Your task to perform on an android device: toggle sleep mode Image 0: 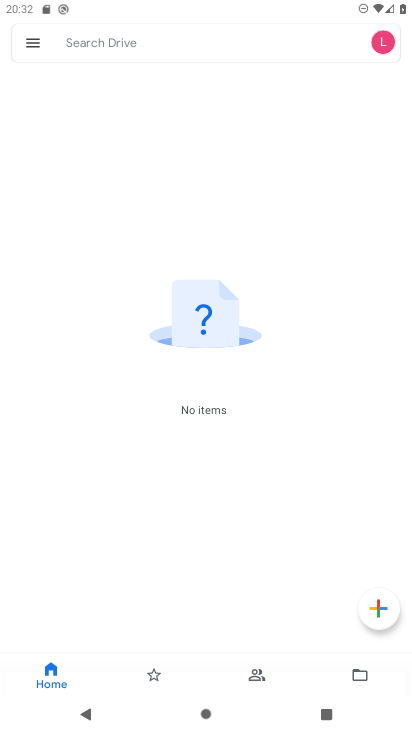
Step 0: press home button
Your task to perform on an android device: toggle sleep mode Image 1: 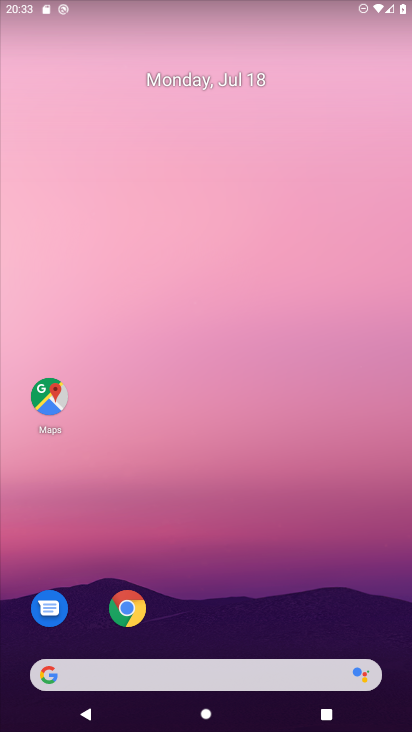
Step 1: drag from (259, 596) to (243, 59)
Your task to perform on an android device: toggle sleep mode Image 2: 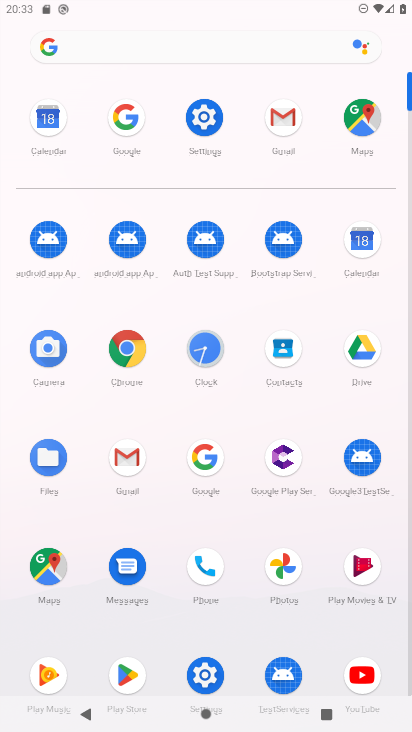
Step 2: click (205, 118)
Your task to perform on an android device: toggle sleep mode Image 3: 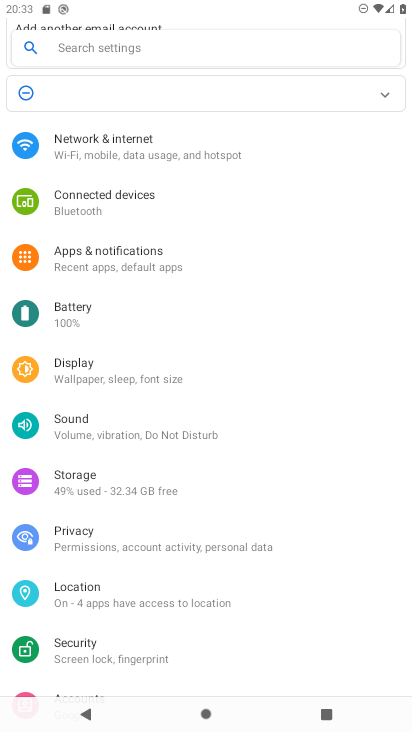
Step 3: click (100, 371)
Your task to perform on an android device: toggle sleep mode Image 4: 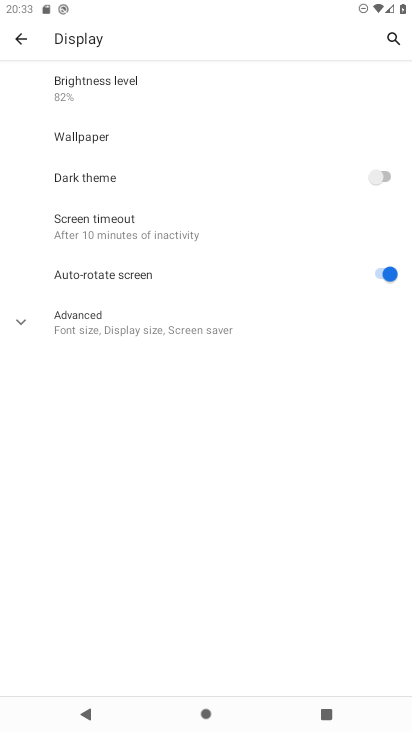
Step 4: click (104, 227)
Your task to perform on an android device: toggle sleep mode Image 5: 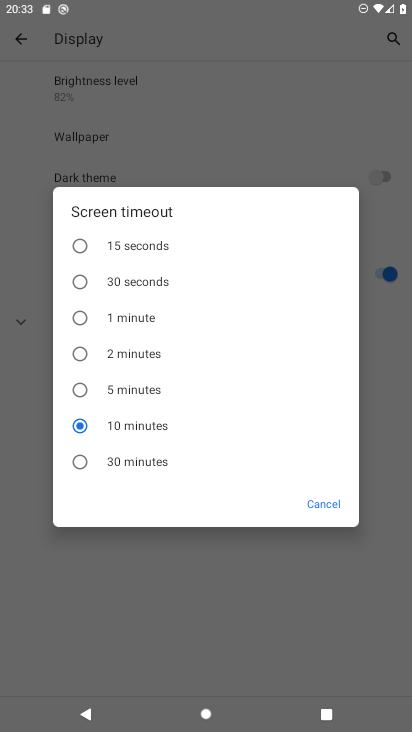
Step 5: click (78, 239)
Your task to perform on an android device: toggle sleep mode Image 6: 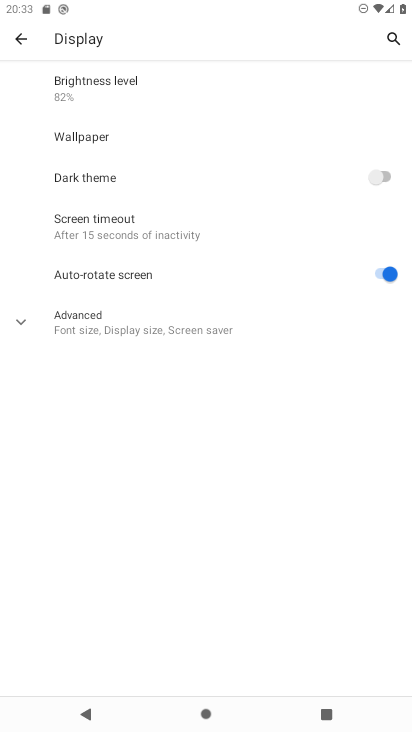
Step 6: task complete